Your task to perform on an android device: search for starred emails in the gmail app Image 0: 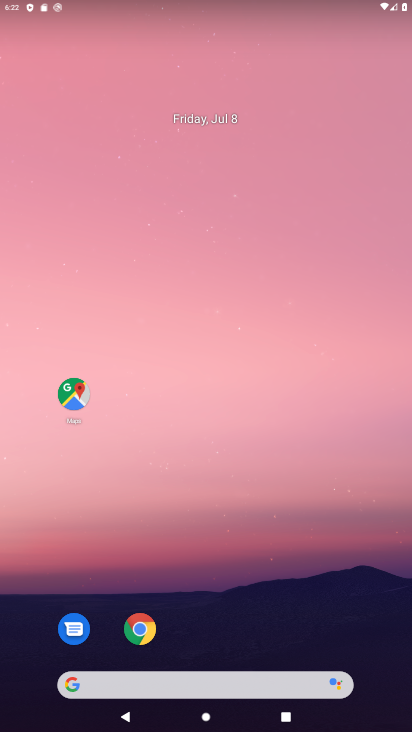
Step 0: drag from (378, 640) to (321, 130)
Your task to perform on an android device: search for starred emails in the gmail app Image 1: 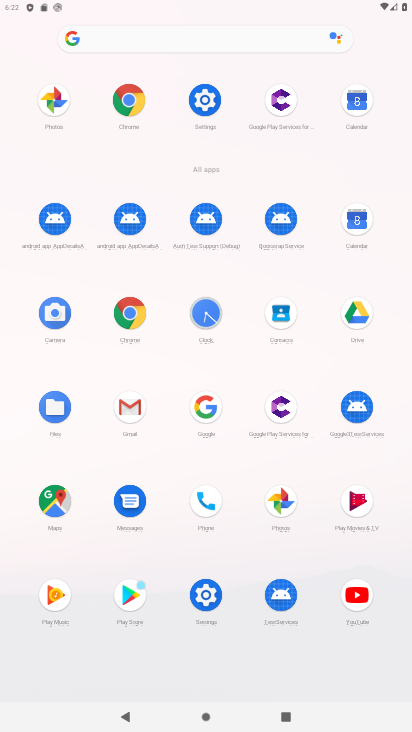
Step 1: click (105, 406)
Your task to perform on an android device: search for starred emails in the gmail app Image 2: 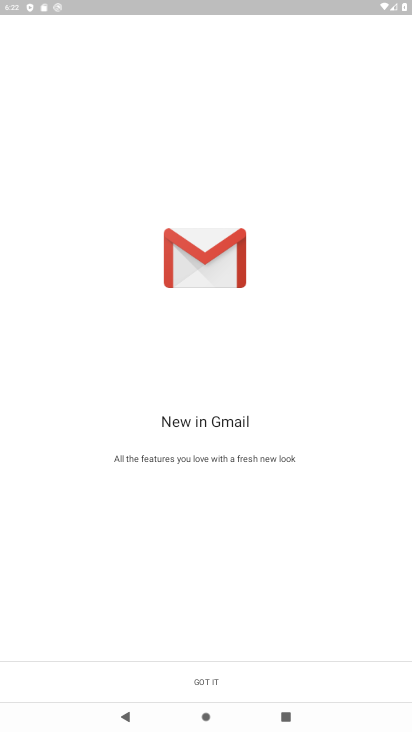
Step 2: click (235, 698)
Your task to perform on an android device: search for starred emails in the gmail app Image 3: 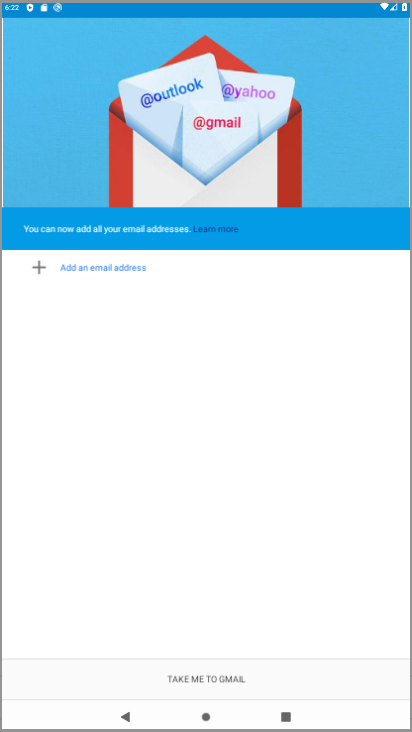
Step 3: click (231, 687)
Your task to perform on an android device: search for starred emails in the gmail app Image 4: 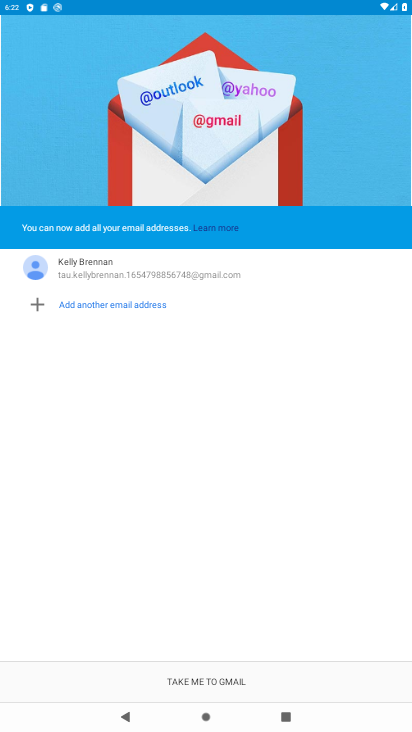
Step 4: click (231, 687)
Your task to perform on an android device: search for starred emails in the gmail app Image 5: 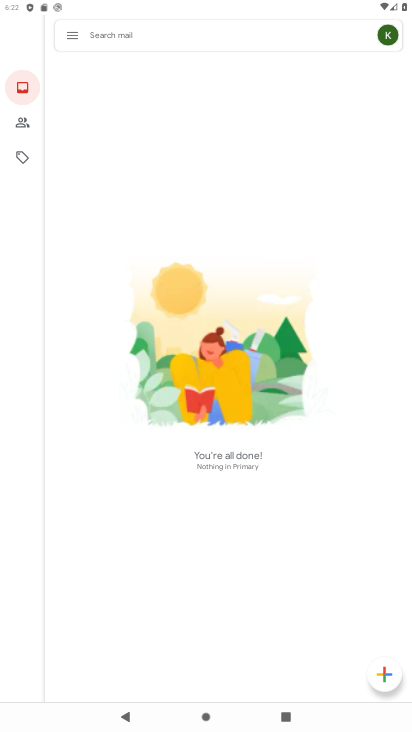
Step 5: click (63, 31)
Your task to perform on an android device: search for starred emails in the gmail app Image 6: 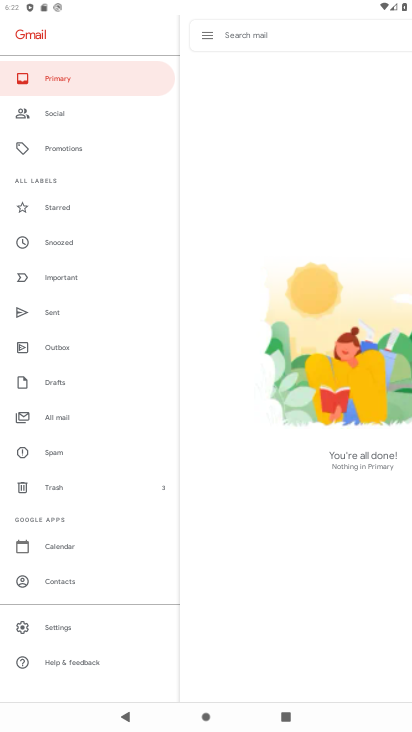
Step 6: click (25, 204)
Your task to perform on an android device: search for starred emails in the gmail app Image 7: 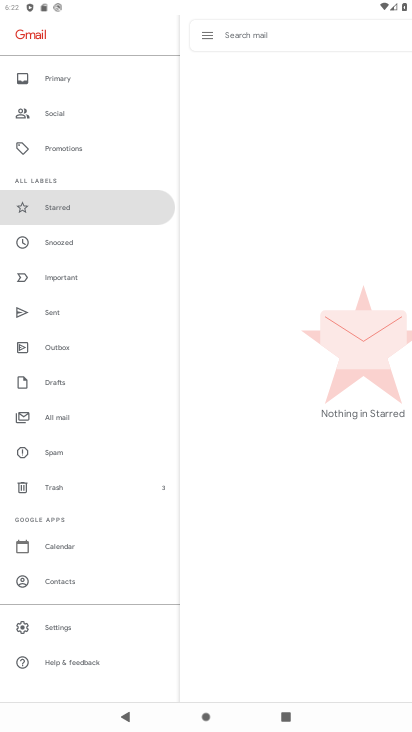
Step 7: task complete